Your task to perform on an android device: Go to wifi settings Image 0: 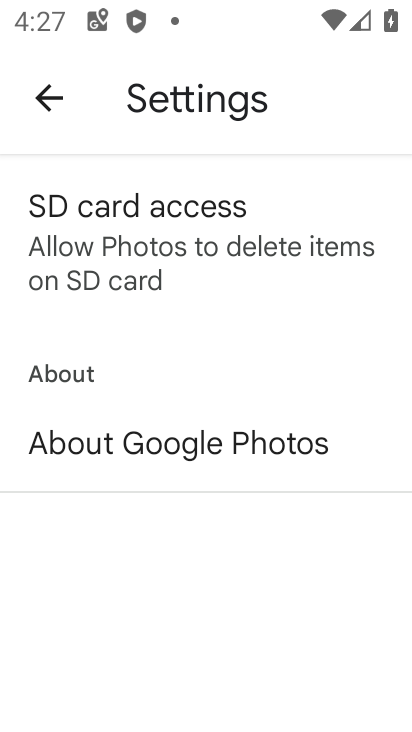
Step 0: press home button
Your task to perform on an android device: Go to wifi settings Image 1: 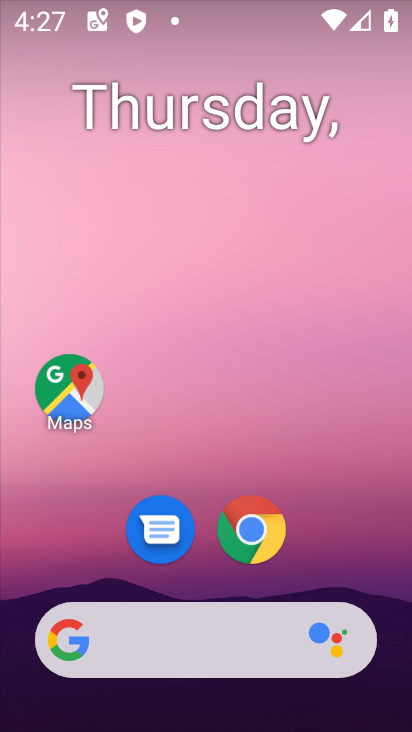
Step 1: click (185, 296)
Your task to perform on an android device: Go to wifi settings Image 2: 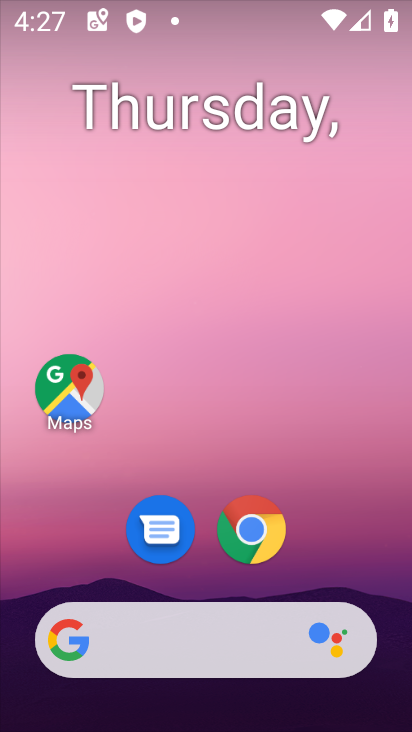
Step 2: drag from (271, 718) to (240, 219)
Your task to perform on an android device: Go to wifi settings Image 3: 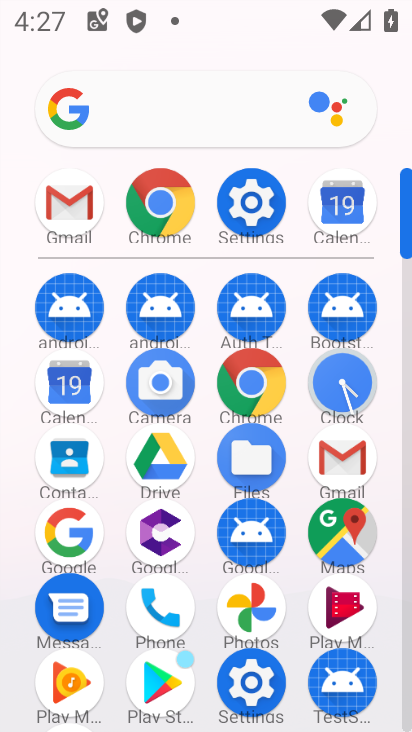
Step 3: click (250, 202)
Your task to perform on an android device: Go to wifi settings Image 4: 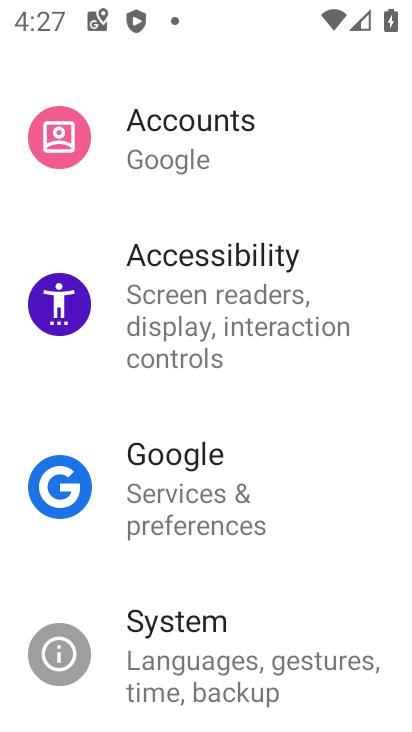
Step 4: drag from (236, 162) to (243, 649)
Your task to perform on an android device: Go to wifi settings Image 5: 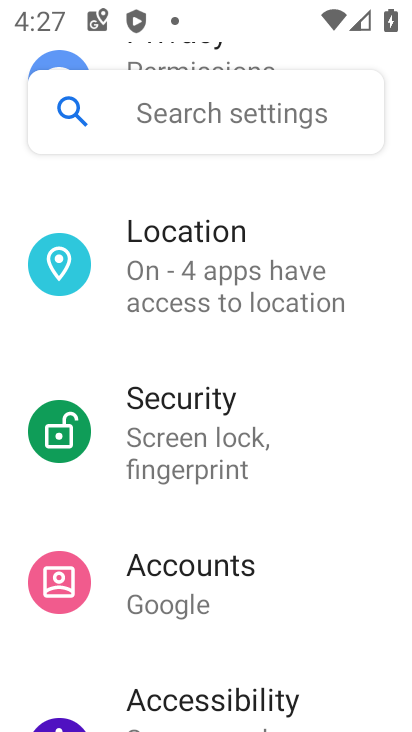
Step 5: drag from (207, 245) to (228, 596)
Your task to perform on an android device: Go to wifi settings Image 6: 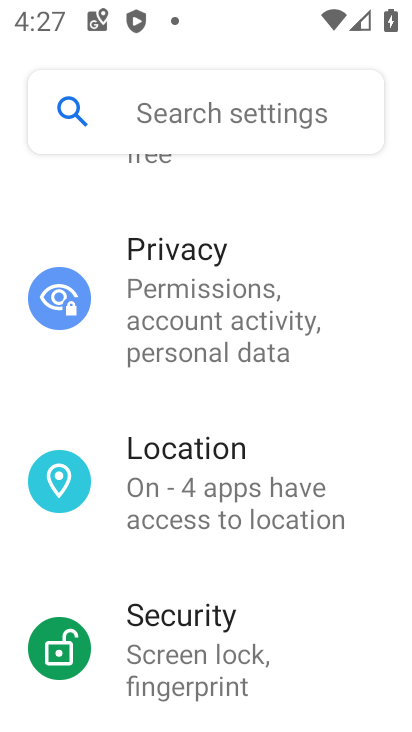
Step 6: drag from (191, 222) to (217, 579)
Your task to perform on an android device: Go to wifi settings Image 7: 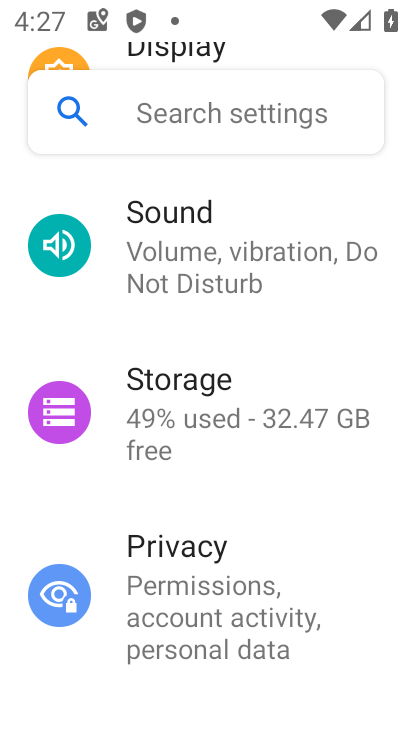
Step 7: drag from (214, 199) to (243, 656)
Your task to perform on an android device: Go to wifi settings Image 8: 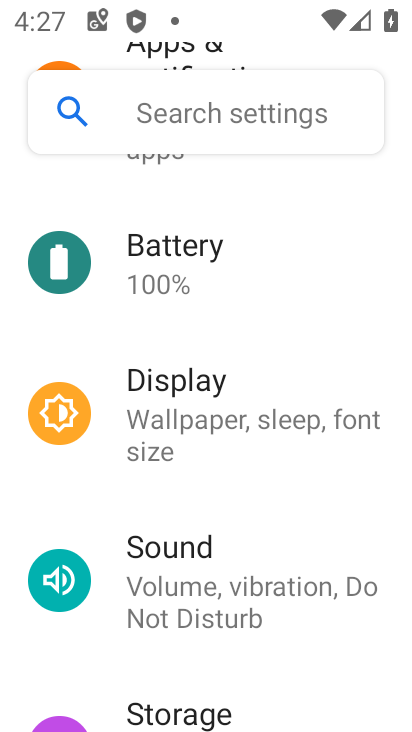
Step 8: drag from (177, 210) to (191, 709)
Your task to perform on an android device: Go to wifi settings Image 9: 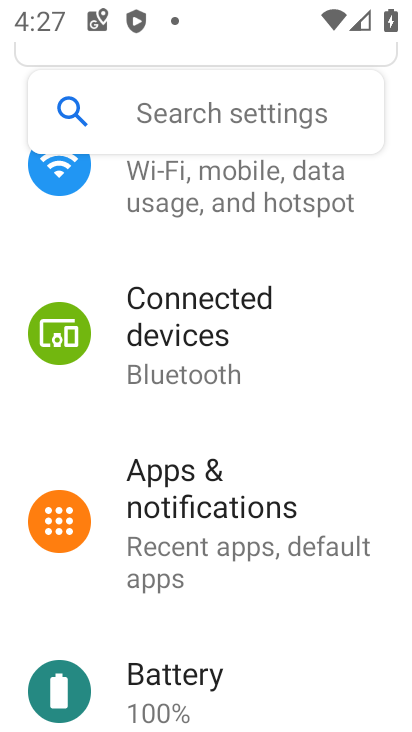
Step 9: drag from (170, 208) to (209, 600)
Your task to perform on an android device: Go to wifi settings Image 10: 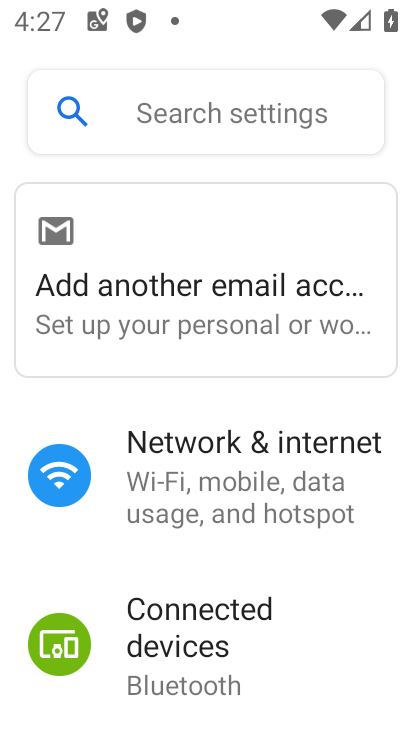
Step 10: click (192, 481)
Your task to perform on an android device: Go to wifi settings Image 11: 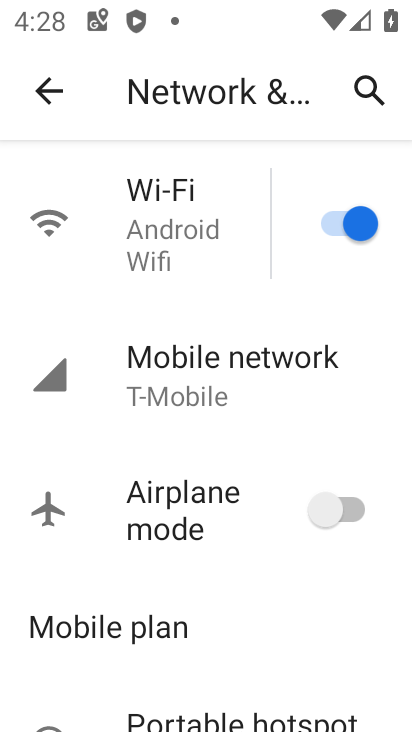
Step 11: click (161, 183)
Your task to perform on an android device: Go to wifi settings Image 12: 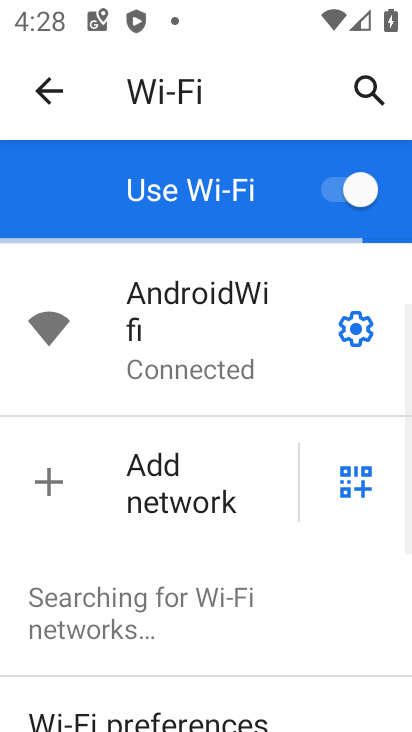
Step 12: task complete